Your task to perform on an android device: Open Chrome and go to the settings page Image 0: 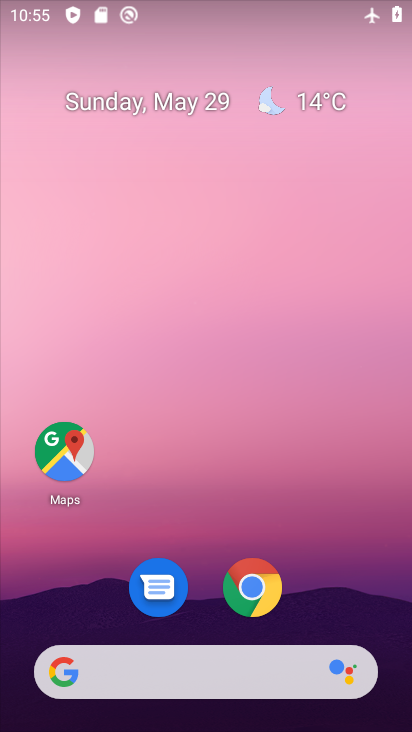
Step 0: click (305, 163)
Your task to perform on an android device: Open Chrome and go to the settings page Image 1: 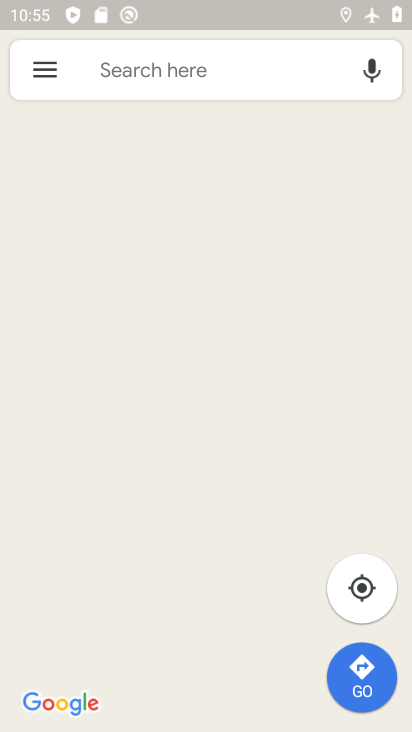
Step 1: press home button
Your task to perform on an android device: Open Chrome and go to the settings page Image 2: 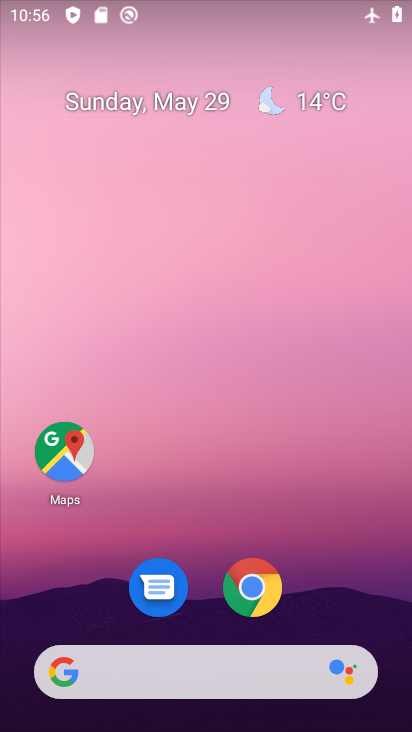
Step 2: drag from (367, 597) to (342, 201)
Your task to perform on an android device: Open Chrome and go to the settings page Image 3: 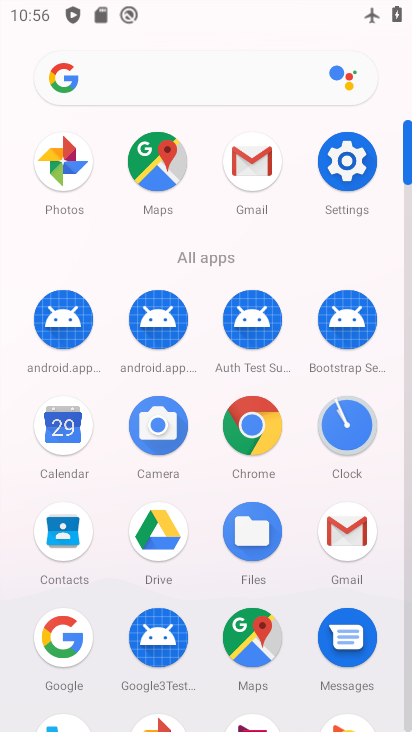
Step 3: click (262, 444)
Your task to perform on an android device: Open Chrome and go to the settings page Image 4: 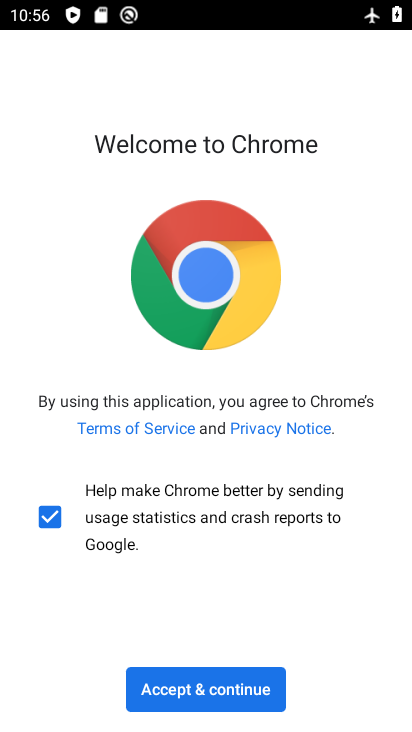
Step 4: click (253, 698)
Your task to perform on an android device: Open Chrome and go to the settings page Image 5: 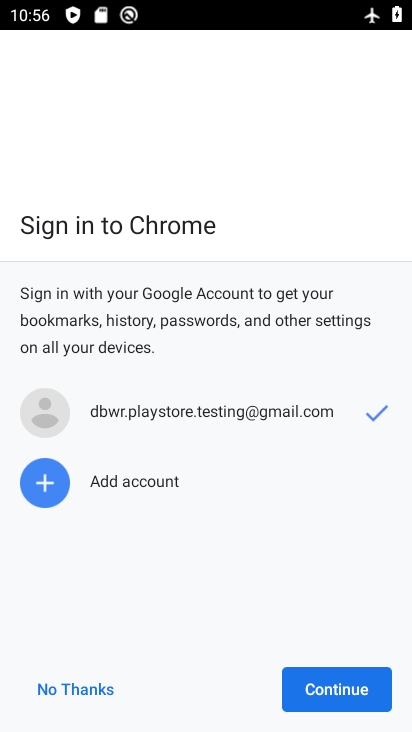
Step 5: click (312, 694)
Your task to perform on an android device: Open Chrome and go to the settings page Image 6: 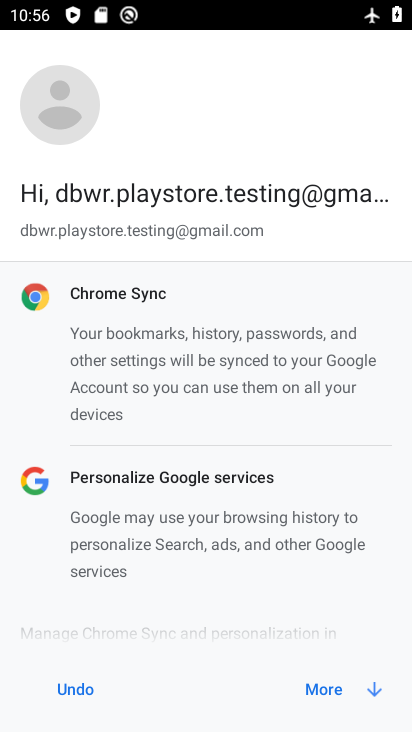
Step 6: click (312, 694)
Your task to perform on an android device: Open Chrome and go to the settings page Image 7: 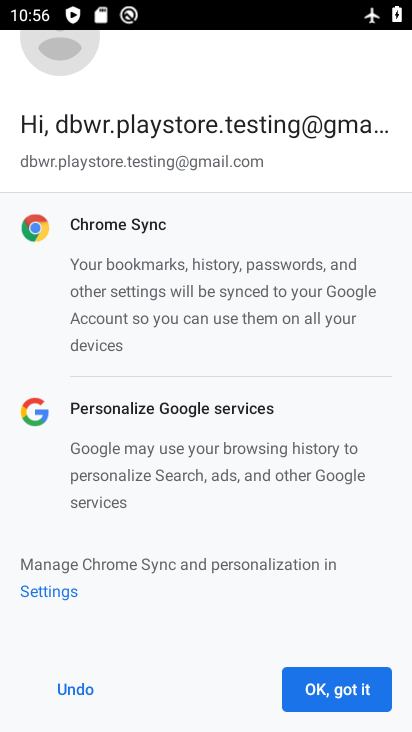
Step 7: click (312, 694)
Your task to perform on an android device: Open Chrome and go to the settings page Image 8: 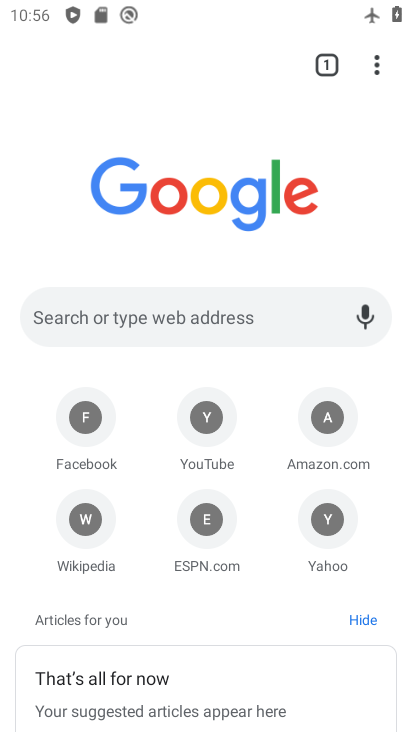
Step 8: task complete